Your task to perform on an android device: all mails in gmail Image 0: 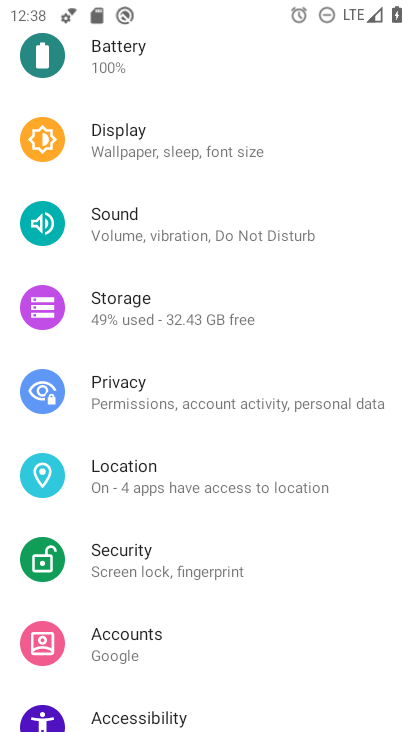
Step 0: press home button
Your task to perform on an android device: all mails in gmail Image 1: 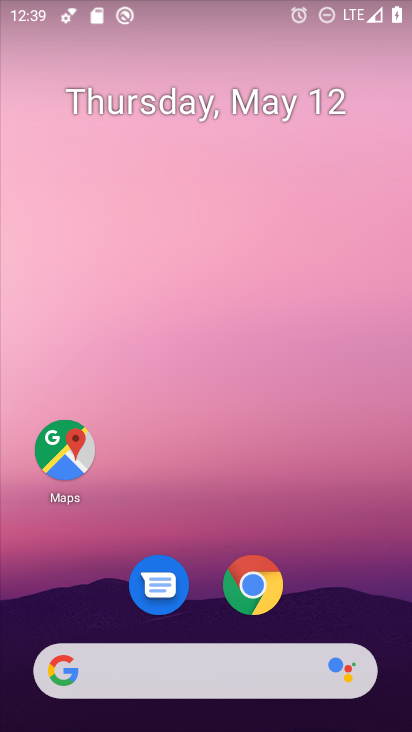
Step 1: drag from (223, 544) to (238, 87)
Your task to perform on an android device: all mails in gmail Image 2: 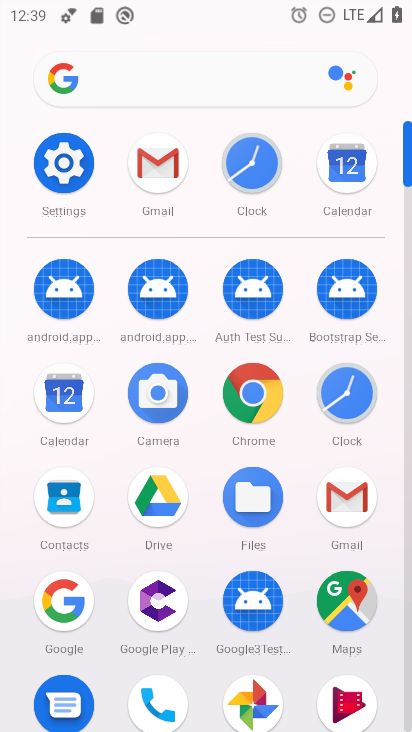
Step 2: click (169, 164)
Your task to perform on an android device: all mails in gmail Image 3: 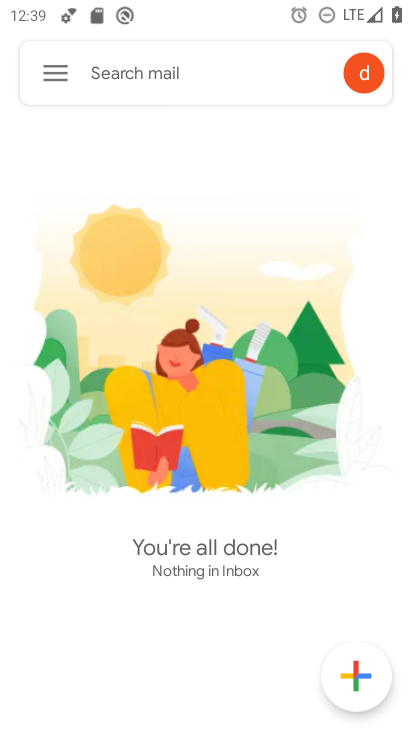
Step 3: click (54, 70)
Your task to perform on an android device: all mails in gmail Image 4: 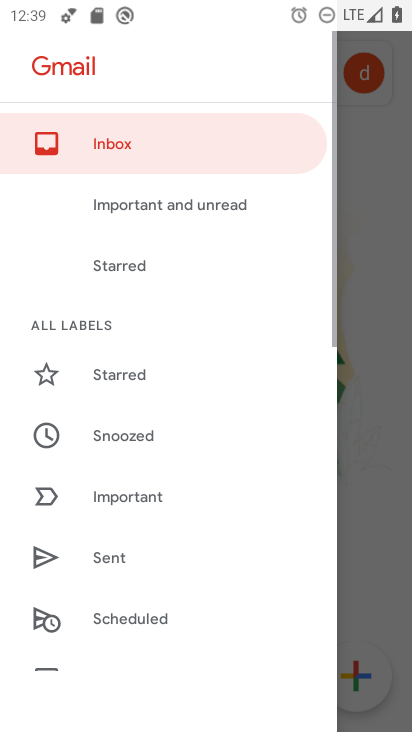
Step 4: drag from (191, 519) to (203, 141)
Your task to perform on an android device: all mails in gmail Image 5: 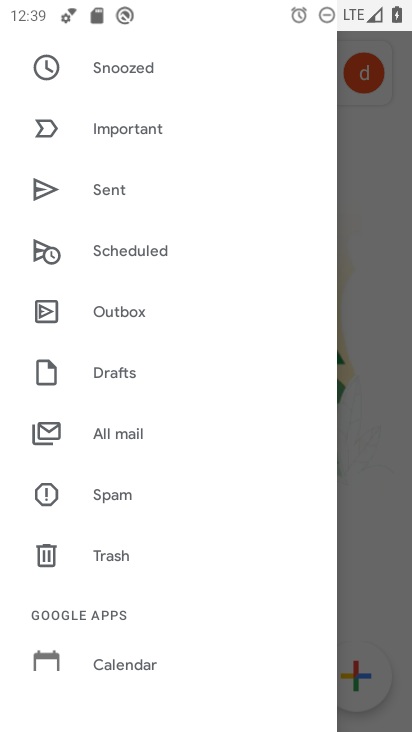
Step 5: click (142, 418)
Your task to perform on an android device: all mails in gmail Image 6: 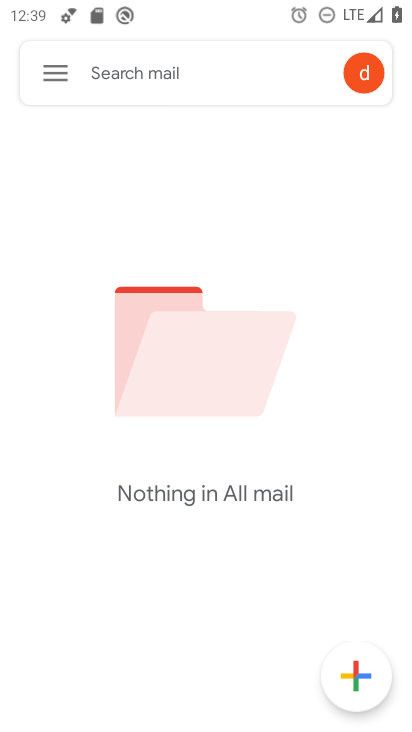
Step 6: task complete